Your task to perform on an android device: Open the phone app and click the voicemail tab. Image 0: 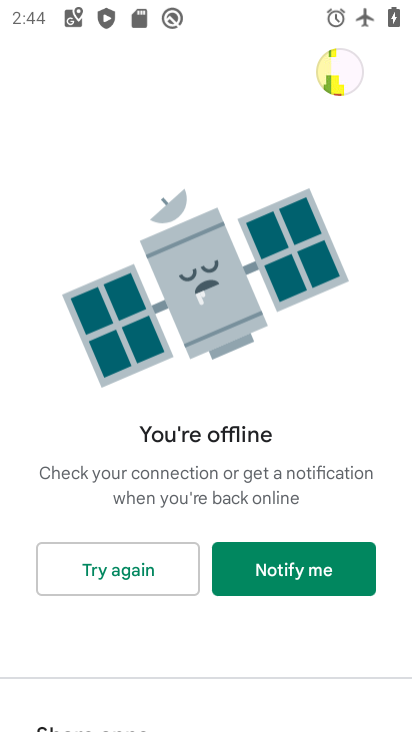
Step 0: press home button
Your task to perform on an android device: Open the phone app and click the voicemail tab. Image 1: 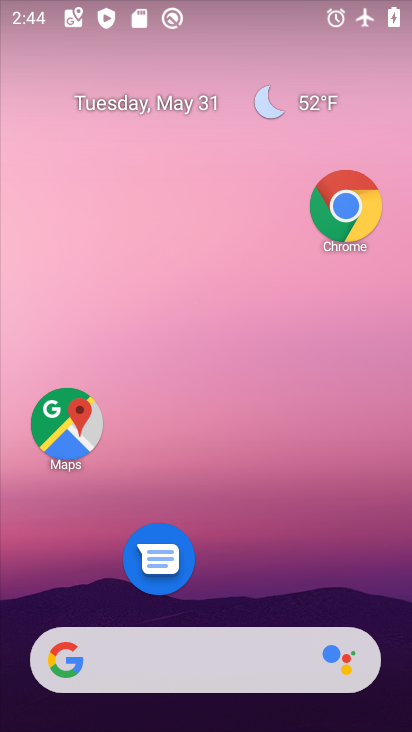
Step 1: drag from (293, 532) to (243, 130)
Your task to perform on an android device: Open the phone app and click the voicemail tab. Image 2: 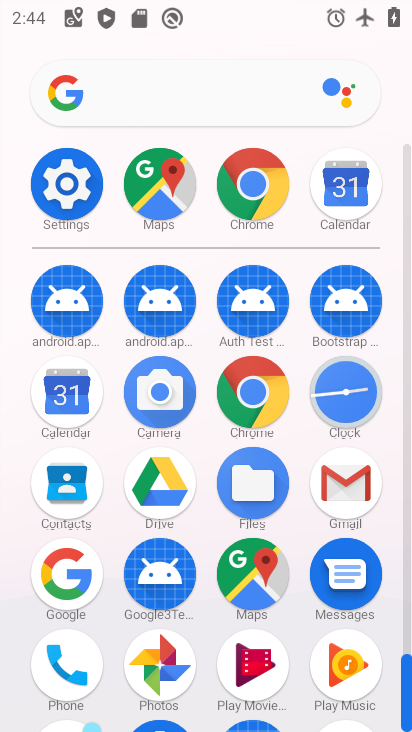
Step 2: drag from (292, 261) to (283, 94)
Your task to perform on an android device: Open the phone app and click the voicemail tab. Image 3: 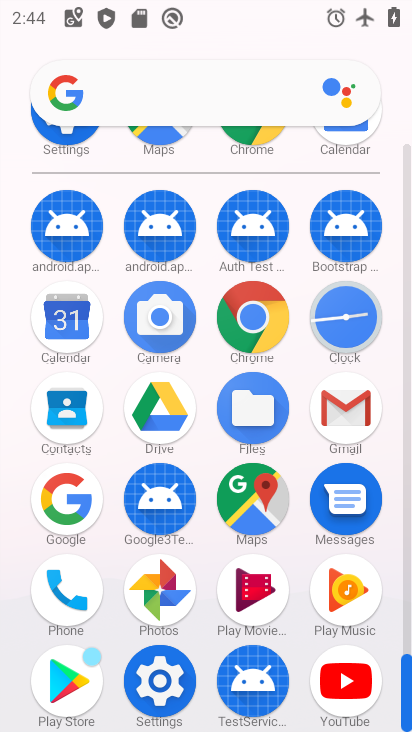
Step 3: click (75, 594)
Your task to perform on an android device: Open the phone app and click the voicemail tab. Image 4: 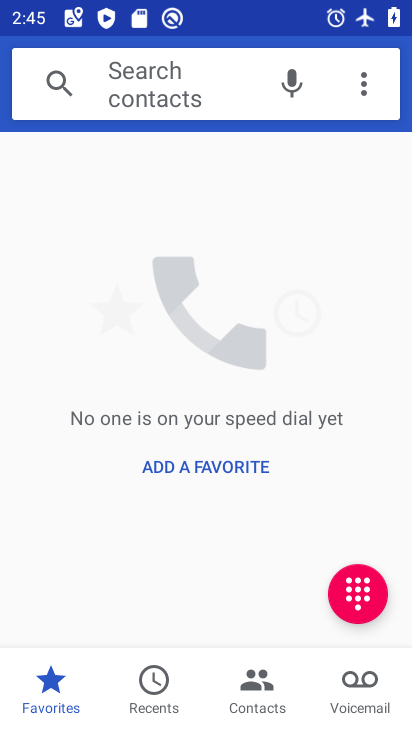
Step 4: click (339, 705)
Your task to perform on an android device: Open the phone app and click the voicemail tab. Image 5: 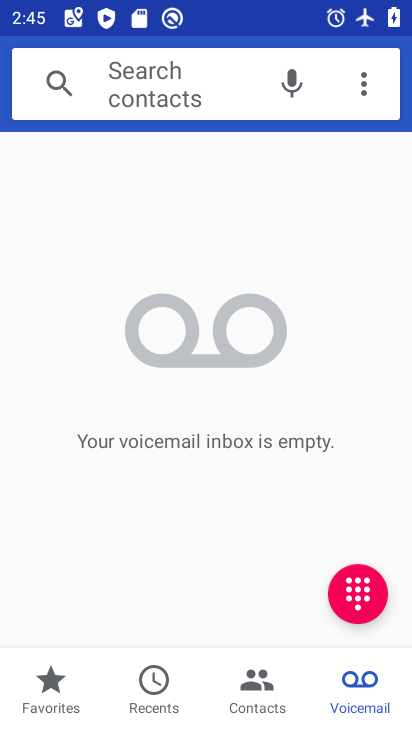
Step 5: task complete